Your task to perform on an android device: Show me recent news Image 0: 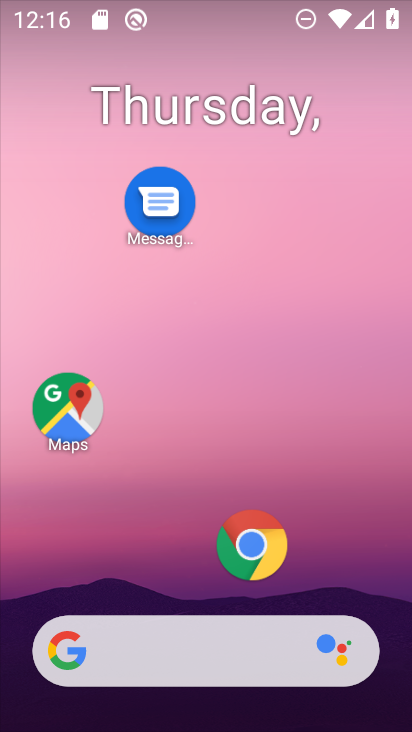
Step 0: drag from (183, 534) to (184, 266)
Your task to perform on an android device: Show me recent news Image 1: 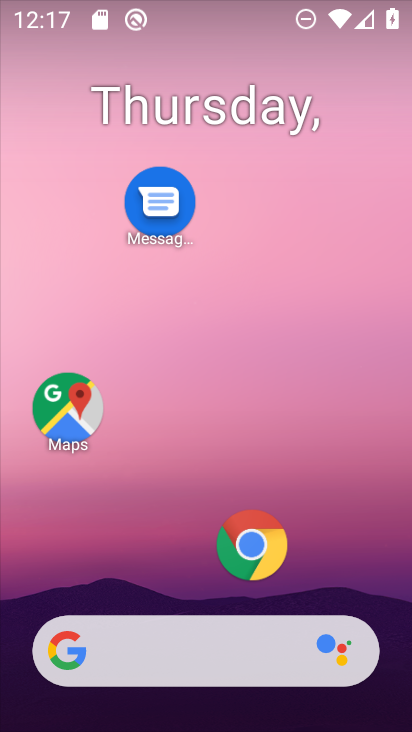
Step 1: drag from (183, 555) to (225, 189)
Your task to perform on an android device: Show me recent news Image 2: 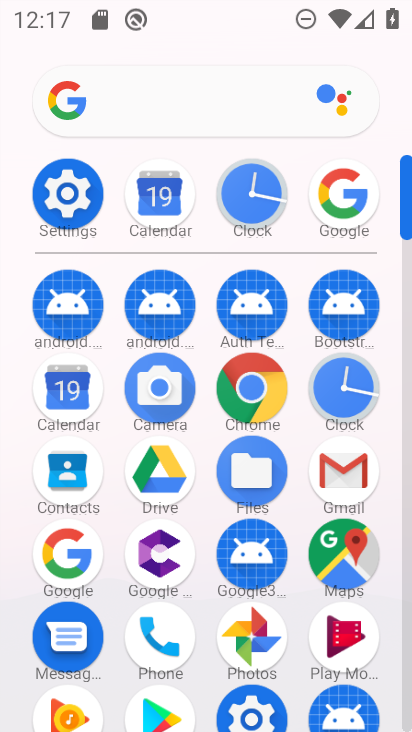
Step 2: click (60, 557)
Your task to perform on an android device: Show me recent news Image 3: 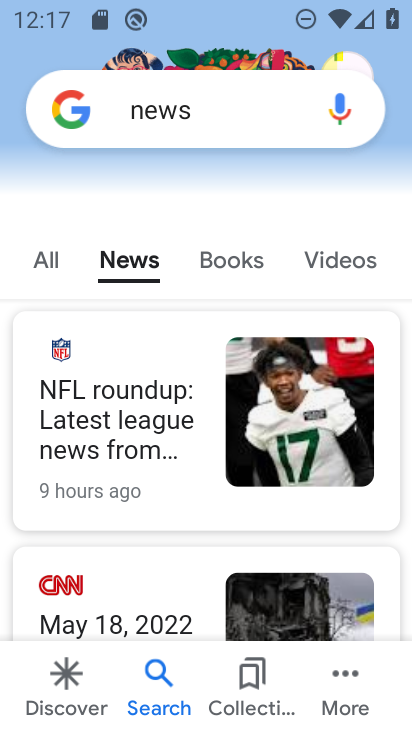
Step 3: task complete